Your task to perform on an android device: Go to wifi settings Image 0: 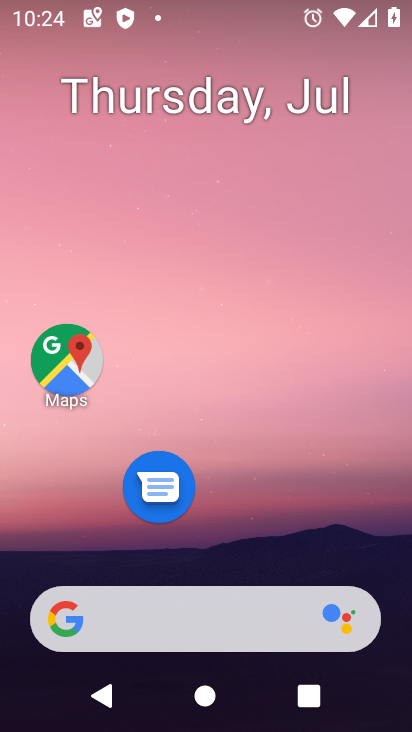
Step 0: drag from (252, 608) to (277, 199)
Your task to perform on an android device: Go to wifi settings Image 1: 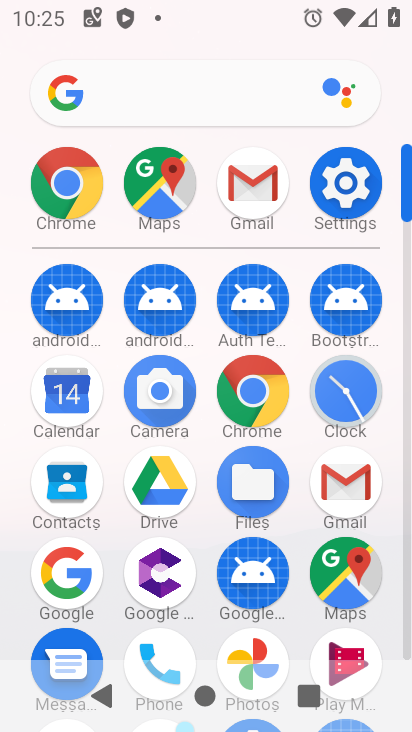
Step 1: click (350, 208)
Your task to perform on an android device: Go to wifi settings Image 2: 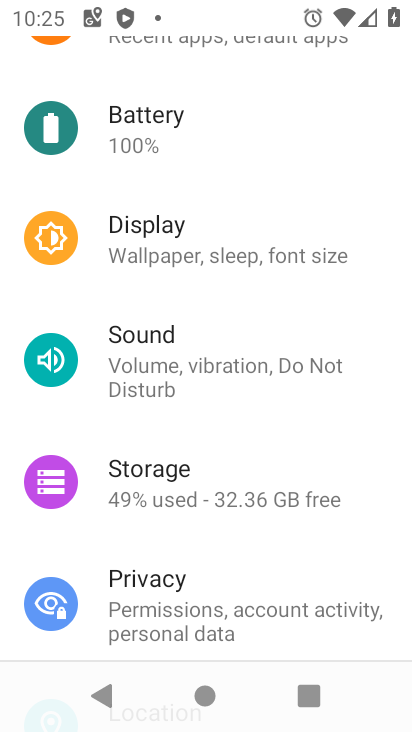
Step 2: drag from (252, 184) to (189, 630)
Your task to perform on an android device: Go to wifi settings Image 3: 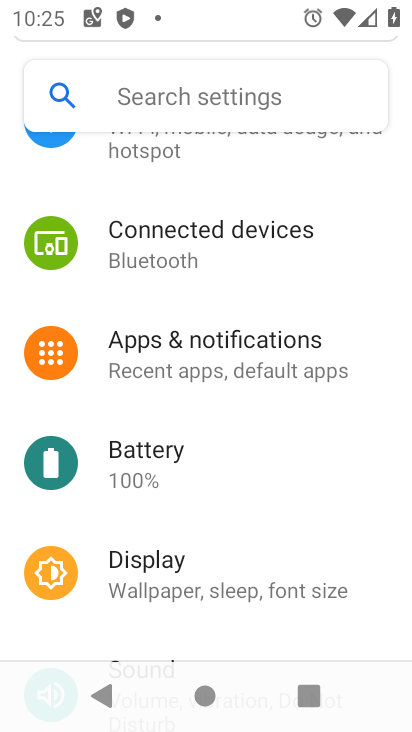
Step 3: drag from (228, 280) to (139, 612)
Your task to perform on an android device: Go to wifi settings Image 4: 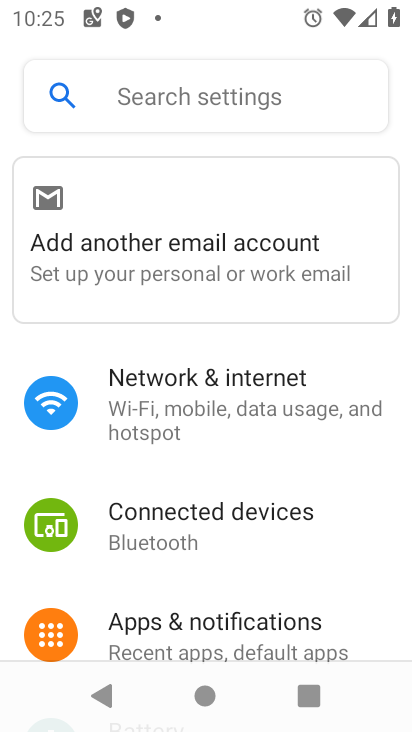
Step 4: click (228, 426)
Your task to perform on an android device: Go to wifi settings Image 5: 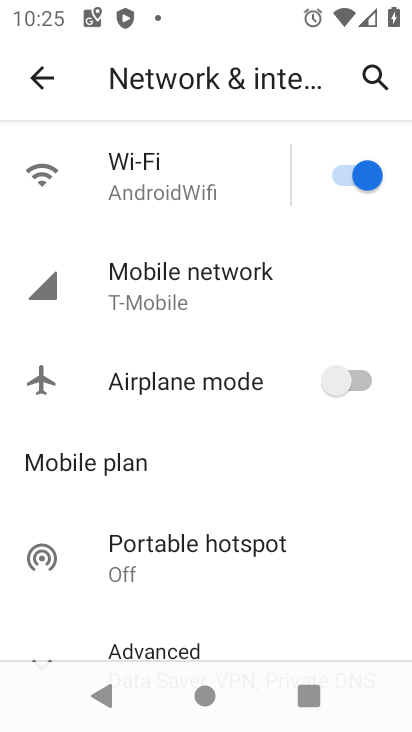
Step 5: click (181, 186)
Your task to perform on an android device: Go to wifi settings Image 6: 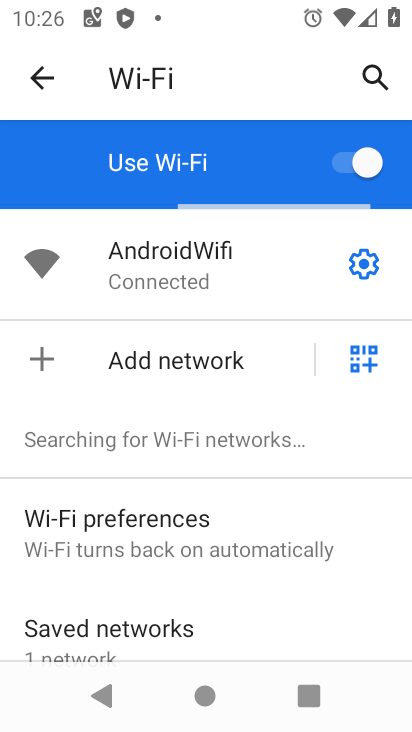
Step 6: task complete